Your task to perform on an android device: Open Amazon Image 0: 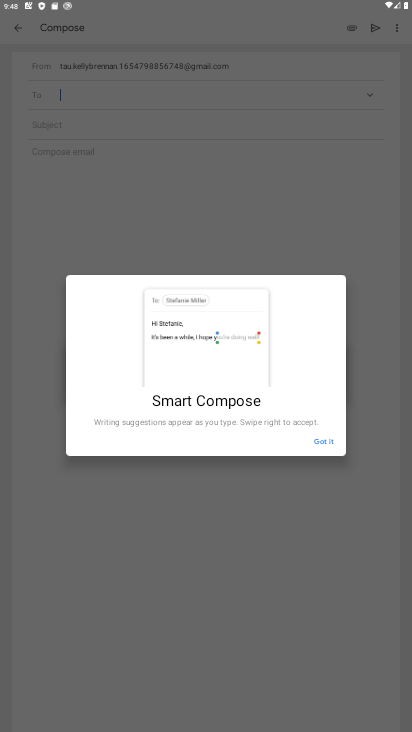
Step 0: press home button
Your task to perform on an android device: Open Amazon Image 1: 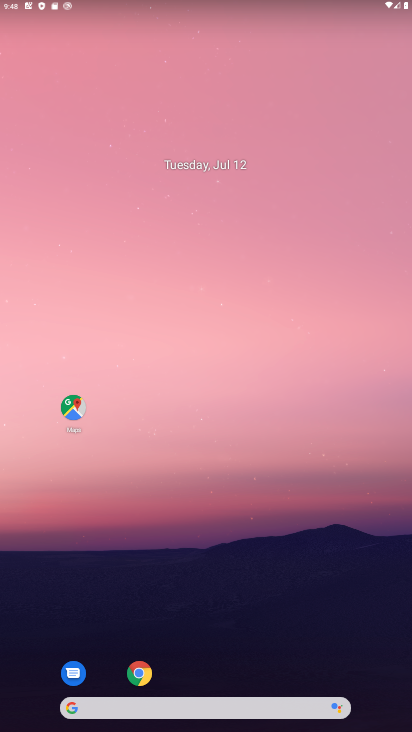
Step 1: drag from (178, 645) to (176, 2)
Your task to perform on an android device: Open Amazon Image 2: 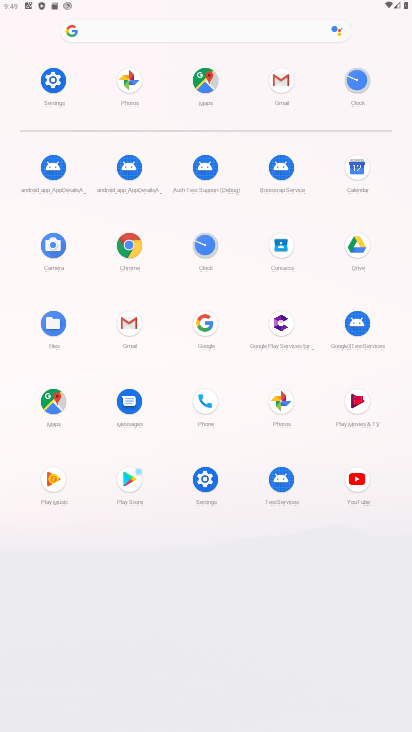
Step 2: click (124, 245)
Your task to perform on an android device: Open Amazon Image 3: 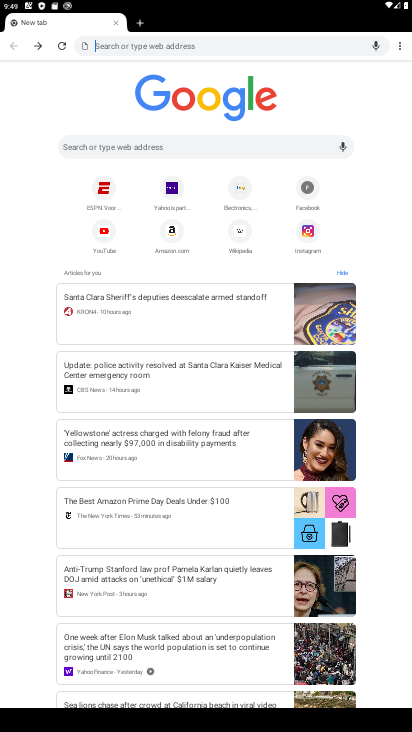
Step 3: click (170, 237)
Your task to perform on an android device: Open Amazon Image 4: 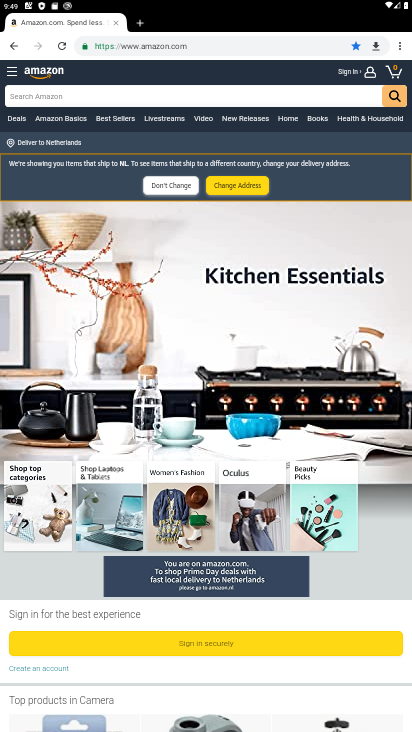
Step 4: task complete